Your task to perform on an android device: open wifi settings Image 0: 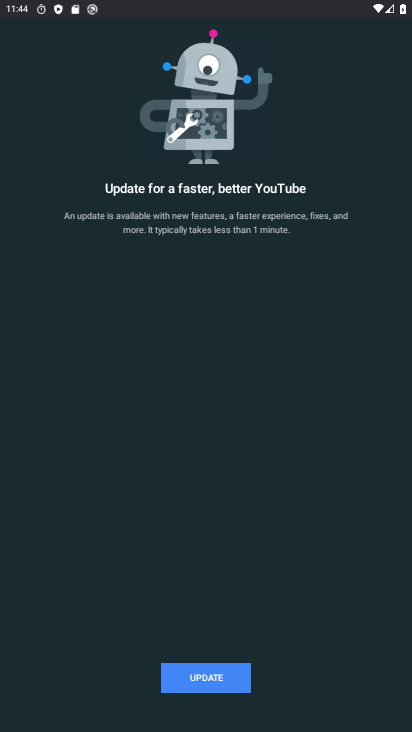
Step 0: press home button
Your task to perform on an android device: open wifi settings Image 1: 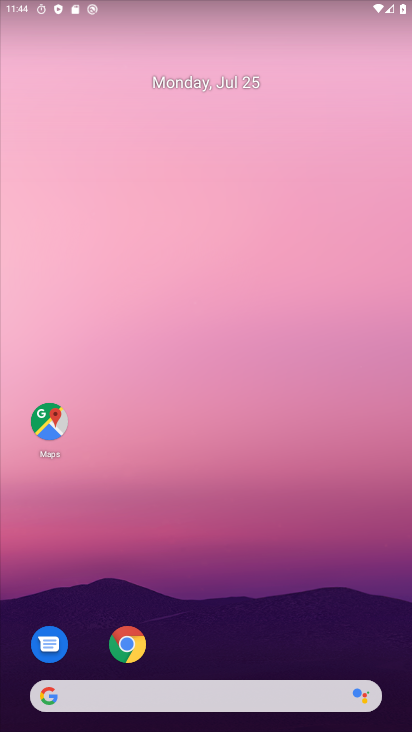
Step 1: drag from (233, 678) to (204, 149)
Your task to perform on an android device: open wifi settings Image 2: 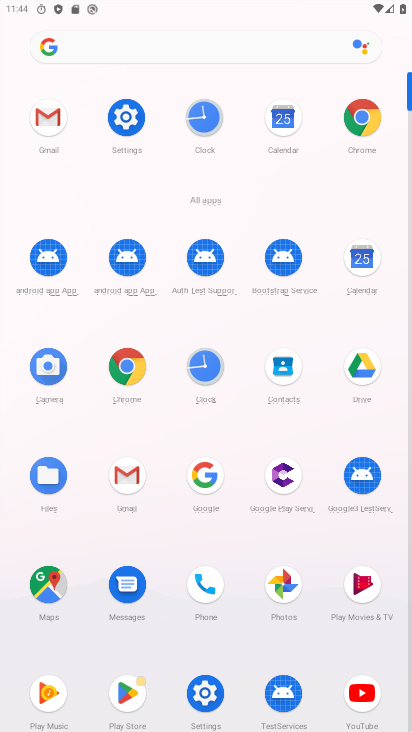
Step 2: click (126, 133)
Your task to perform on an android device: open wifi settings Image 3: 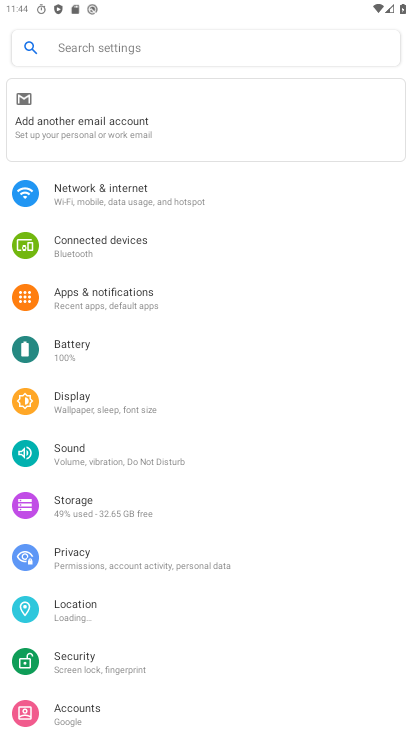
Step 3: click (86, 201)
Your task to perform on an android device: open wifi settings Image 4: 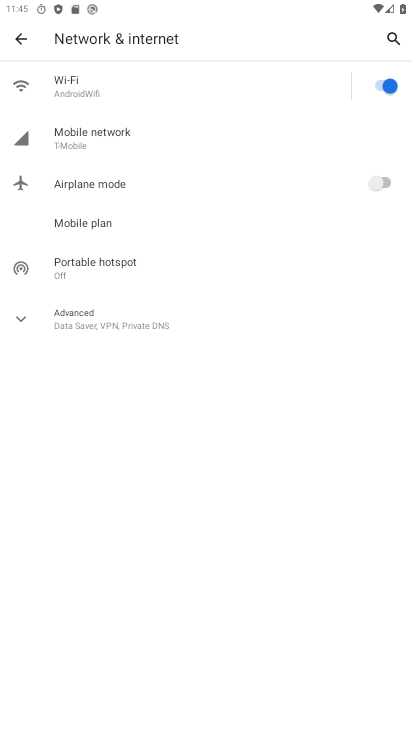
Step 4: task complete